Your task to perform on an android device: Go to Google Image 0: 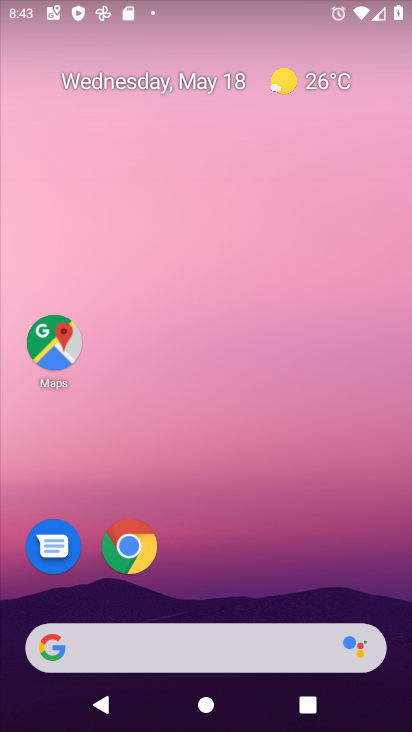
Step 0: drag from (387, 618) to (274, 79)
Your task to perform on an android device: Go to Google Image 1: 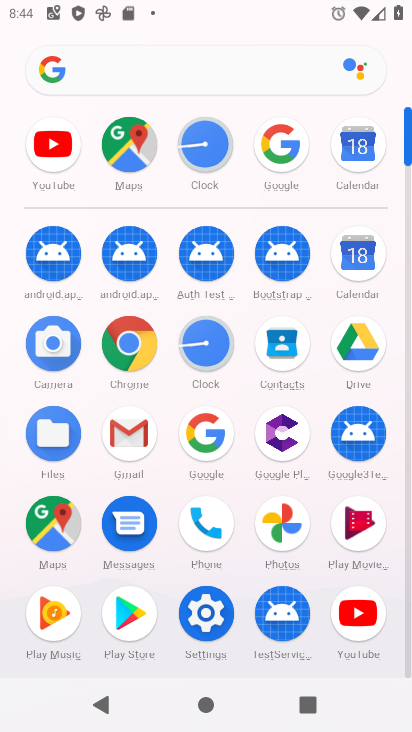
Step 1: click (192, 432)
Your task to perform on an android device: Go to Google Image 2: 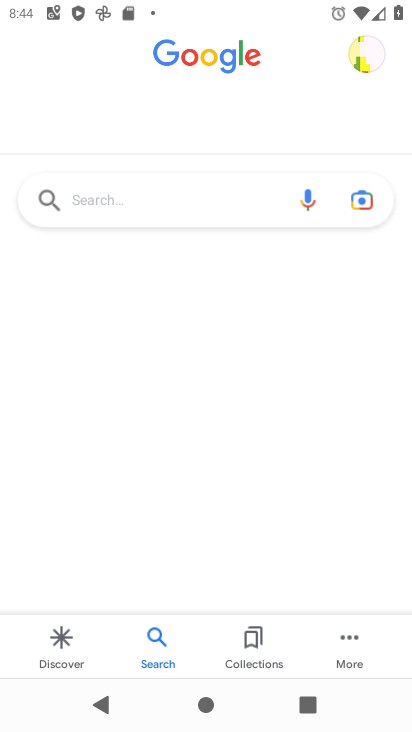
Step 2: task complete